Your task to perform on an android device: check data usage Image 0: 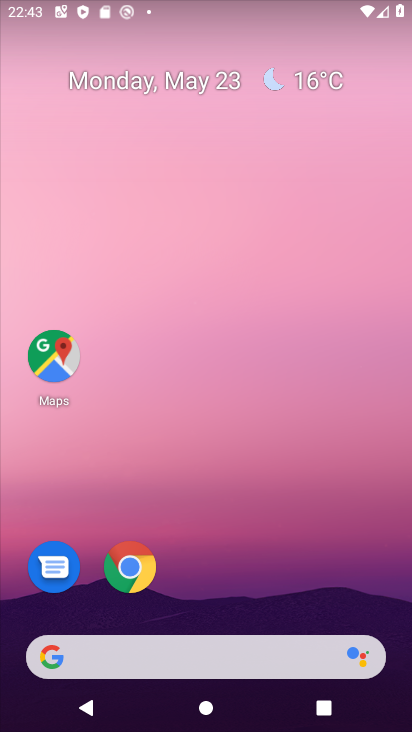
Step 0: click (256, 167)
Your task to perform on an android device: check data usage Image 1: 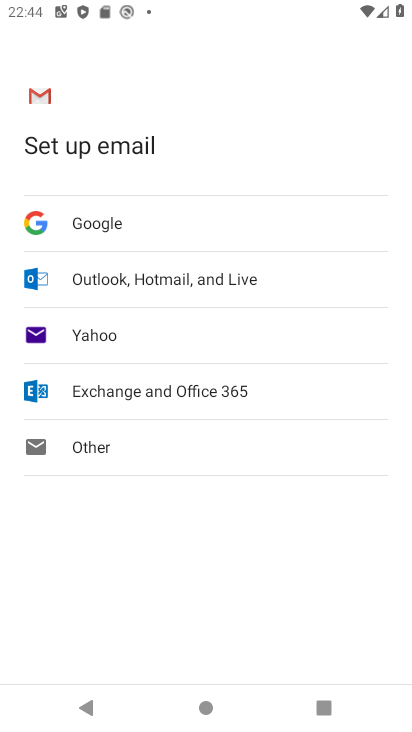
Step 1: drag from (246, 547) to (260, 234)
Your task to perform on an android device: check data usage Image 2: 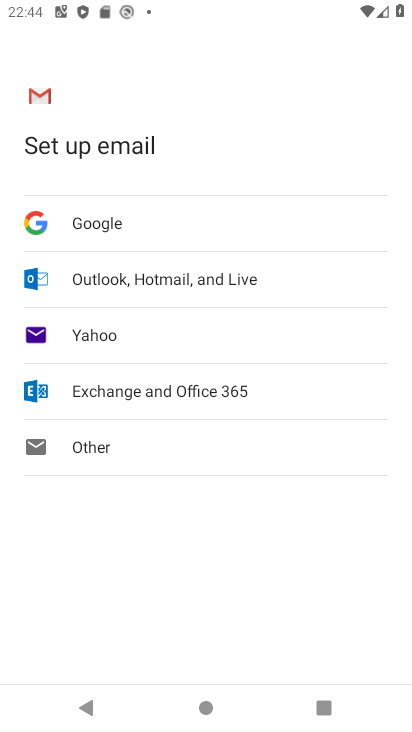
Step 2: press home button
Your task to perform on an android device: check data usage Image 3: 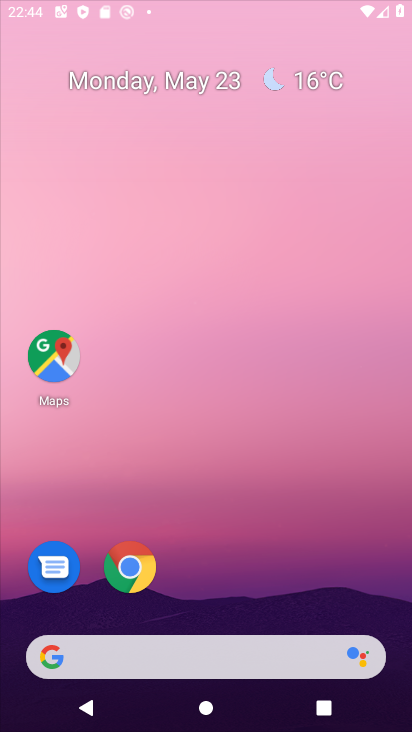
Step 3: drag from (185, 633) to (313, 47)
Your task to perform on an android device: check data usage Image 4: 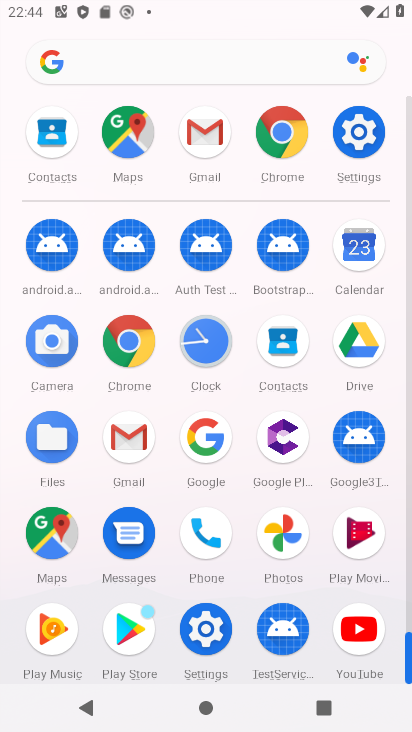
Step 4: click (360, 140)
Your task to perform on an android device: check data usage Image 5: 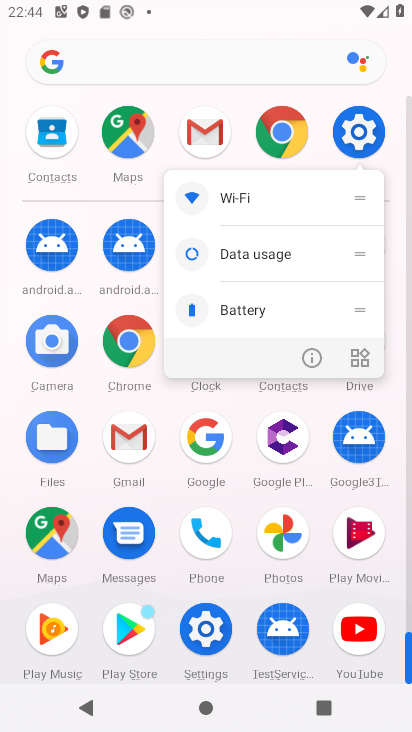
Step 5: click (309, 364)
Your task to perform on an android device: check data usage Image 6: 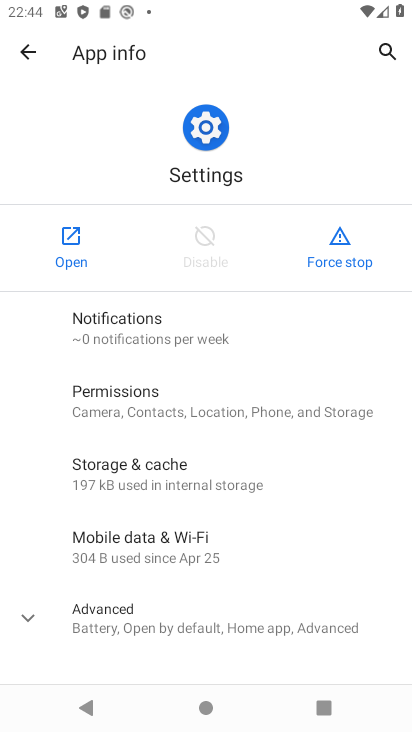
Step 6: click (55, 245)
Your task to perform on an android device: check data usage Image 7: 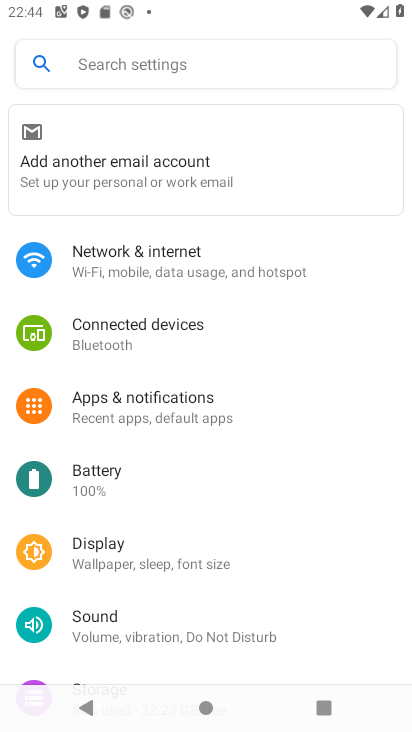
Step 7: click (134, 256)
Your task to perform on an android device: check data usage Image 8: 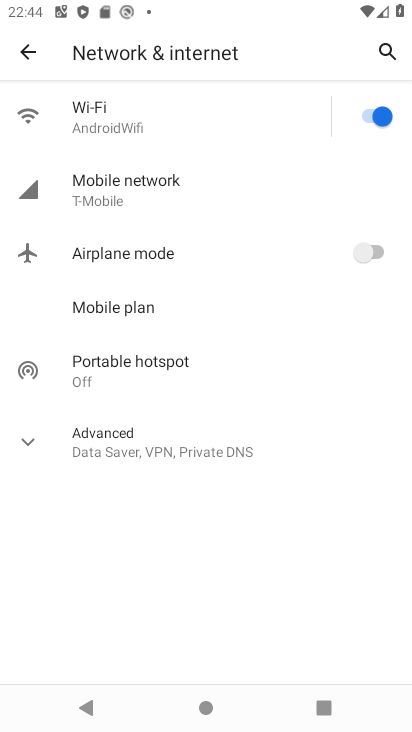
Step 8: drag from (243, 577) to (314, 208)
Your task to perform on an android device: check data usage Image 9: 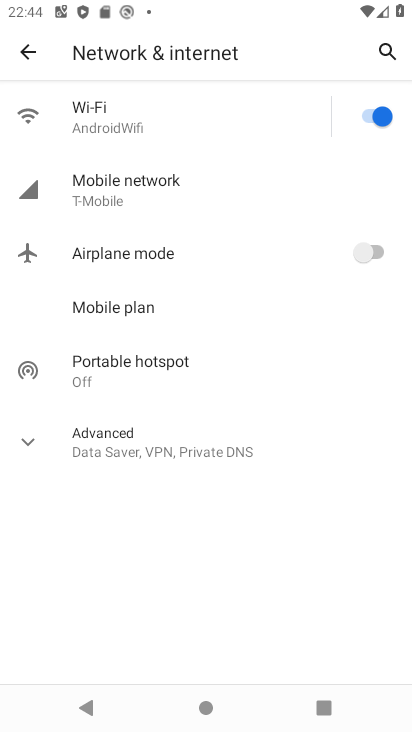
Step 9: click (199, 186)
Your task to perform on an android device: check data usage Image 10: 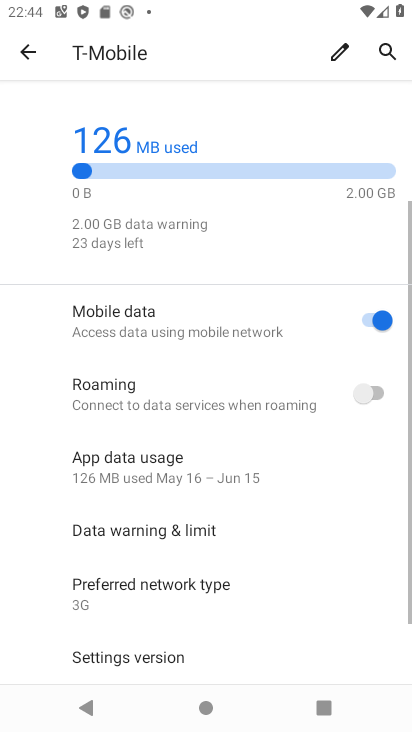
Step 10: task complete